Your task to perform on an android device: turn off improve location accuracy Image 0: 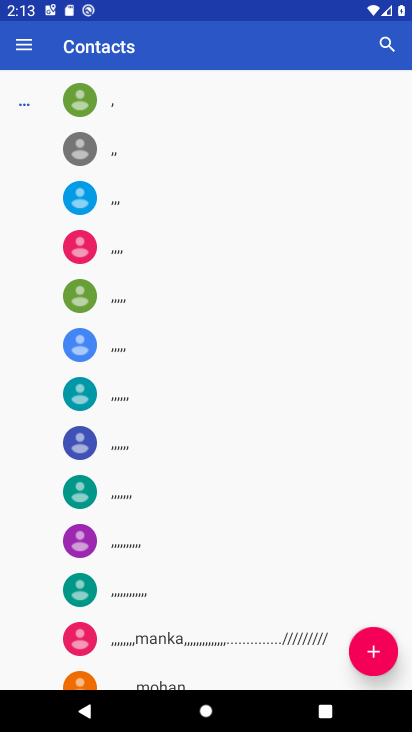
Step 0: press home button
Your task to perform on an android device: turn off improve location accuracy Image 1: 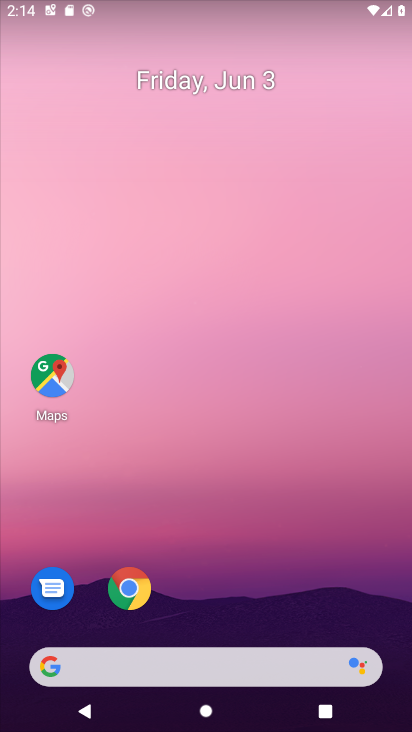
Step 1: drag from (220, 670) to (291, 108)
Your task to perform on an android device: turn off improve location accuracy Image 2: 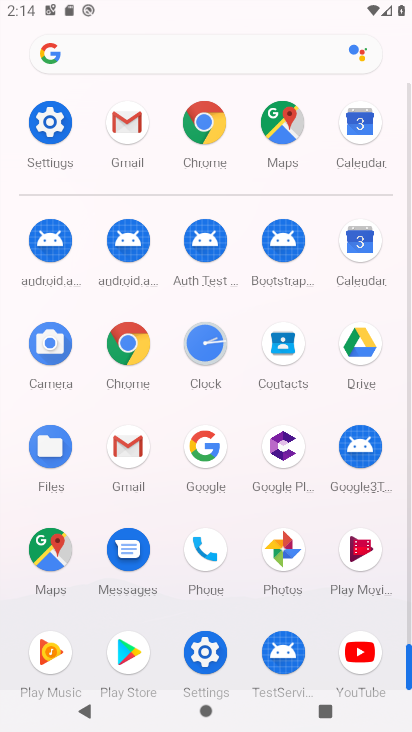
Step 2: click (48, 148)
Your task to perform on an android device: turn off improve location accuracy Image 3: 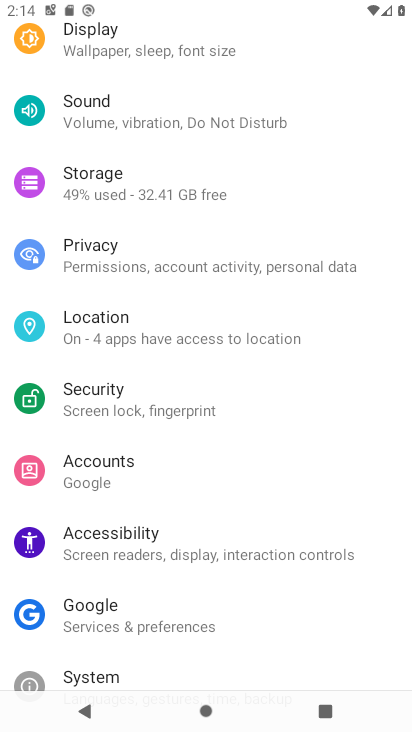
Step 3: click (129, 336)
Your task to perform on an android device: turn off improve location accuracy Image 4: 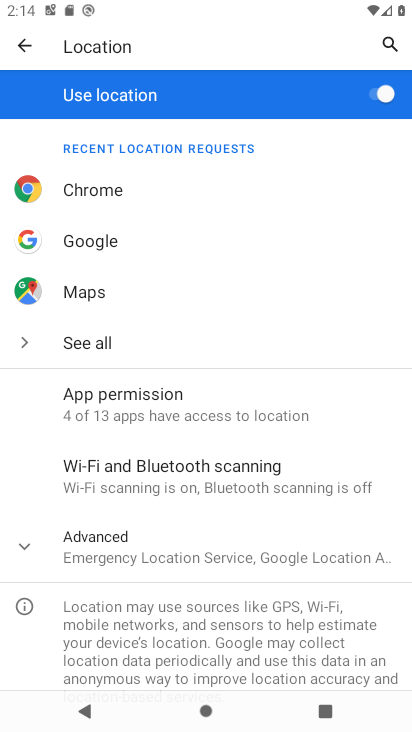
Step 4: click (150, 558)
Your task to perform on an android device: turn off improve location accuracy Image 5: 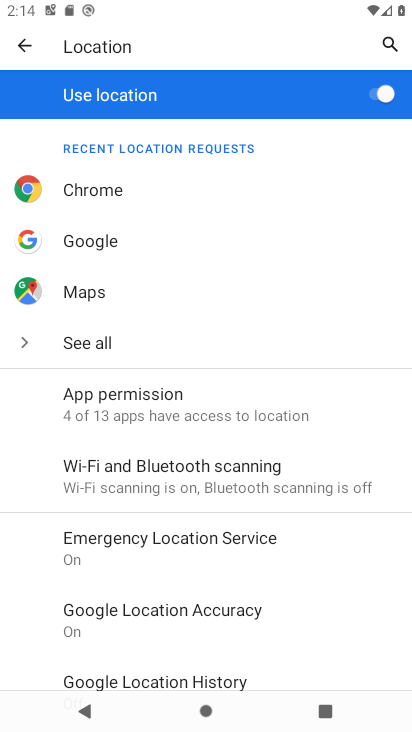
Step 5: click (182, 608)
Your task to perform on an android device: turn off improve location accuracy Image 6: 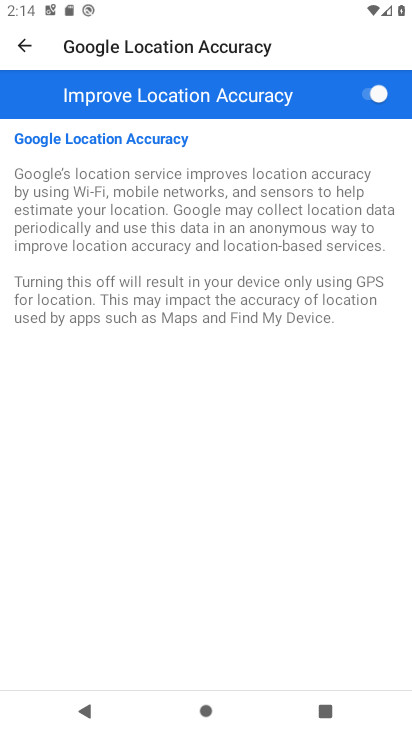
Step 6: click (368, 94)
Your task to perform on an android device: turn off improve location accuracy Image 7: 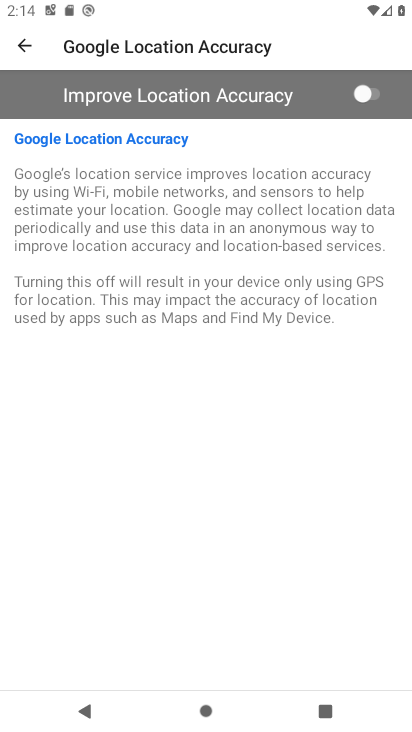
Step 7: task complete